Your task to perform on an android device: see sites visited before in the chrome app Image 0: 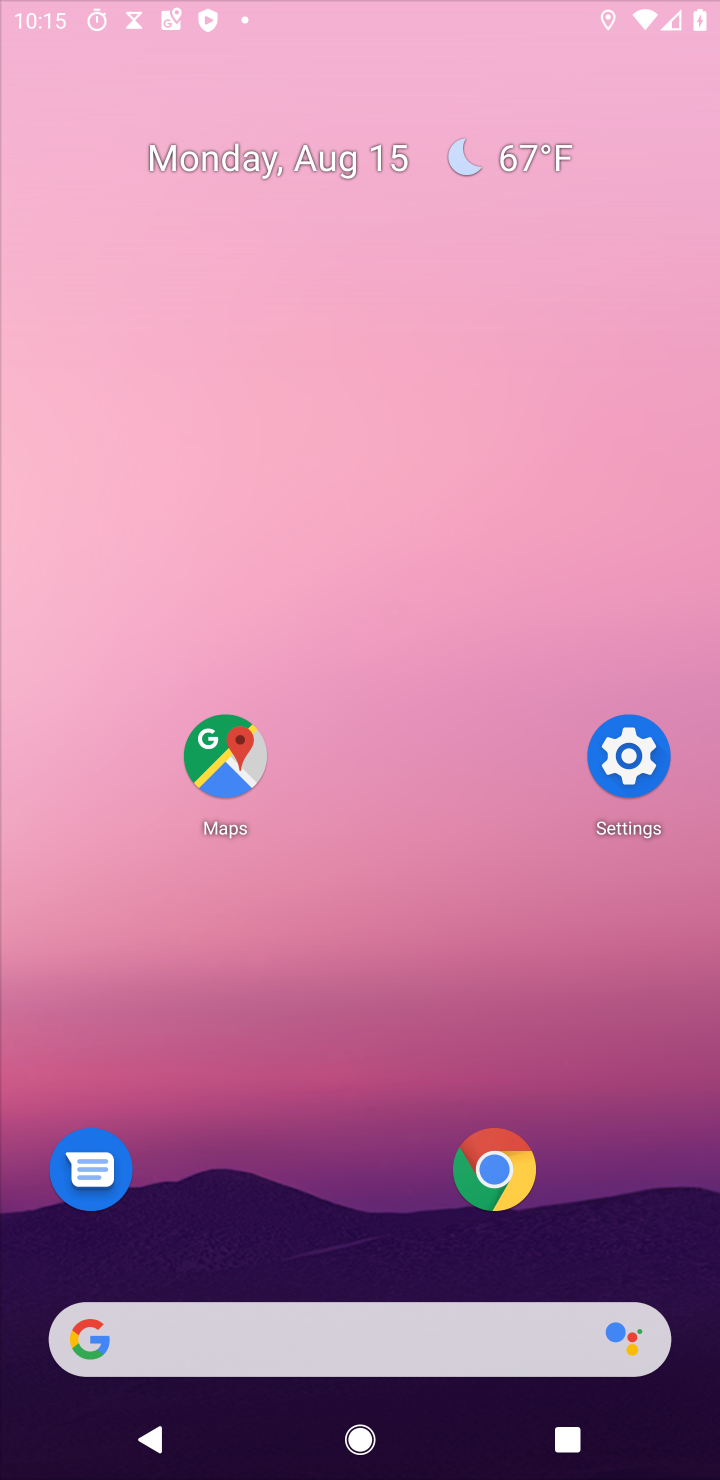
Step 0: press home button
Your task to perform on an android device: see sites visited before in the chrome app Image 1: 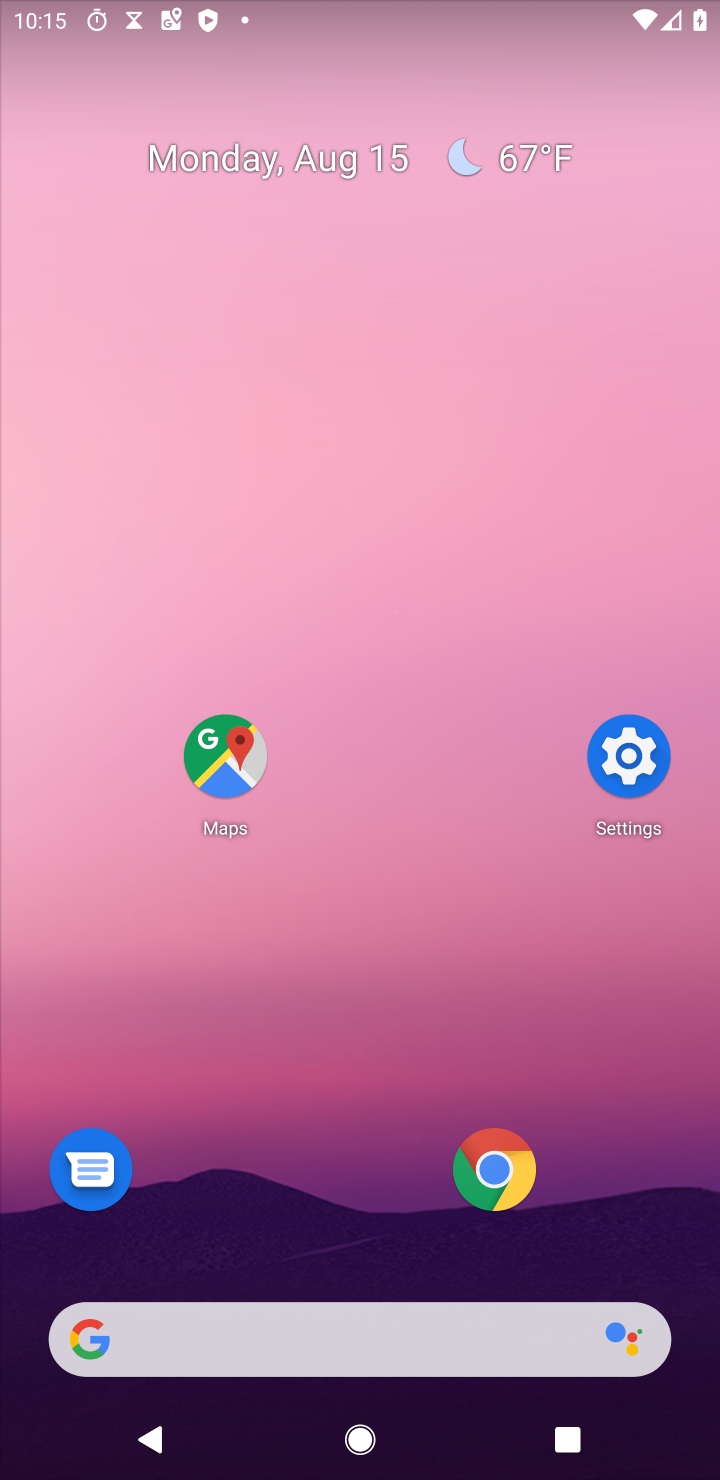
Step 1: click (497, 1173)
Your task to perform on an android device: see sites visited before in the chrome app Image 2: 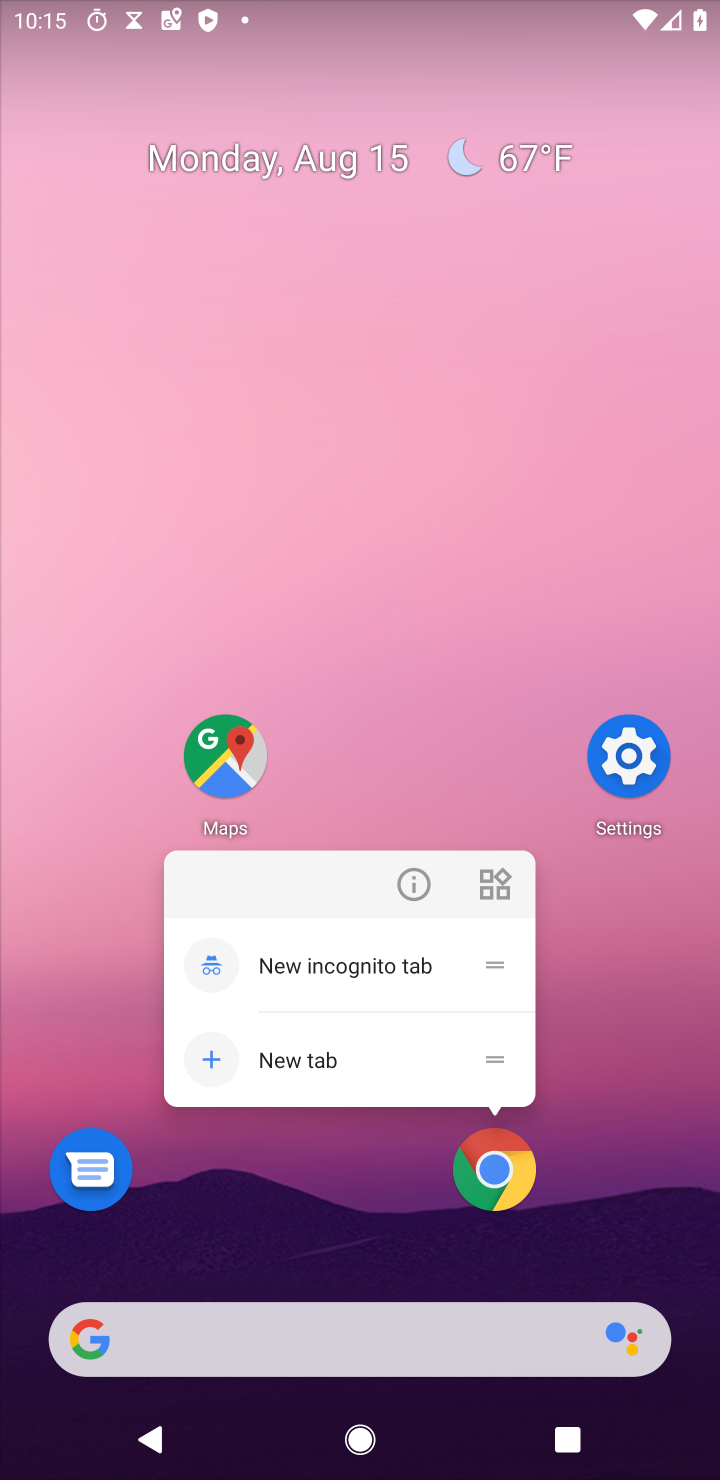
Step 2: click (497, 1178)
Your task to perform on an android device: see sites visited before in the chrome app Image 3: 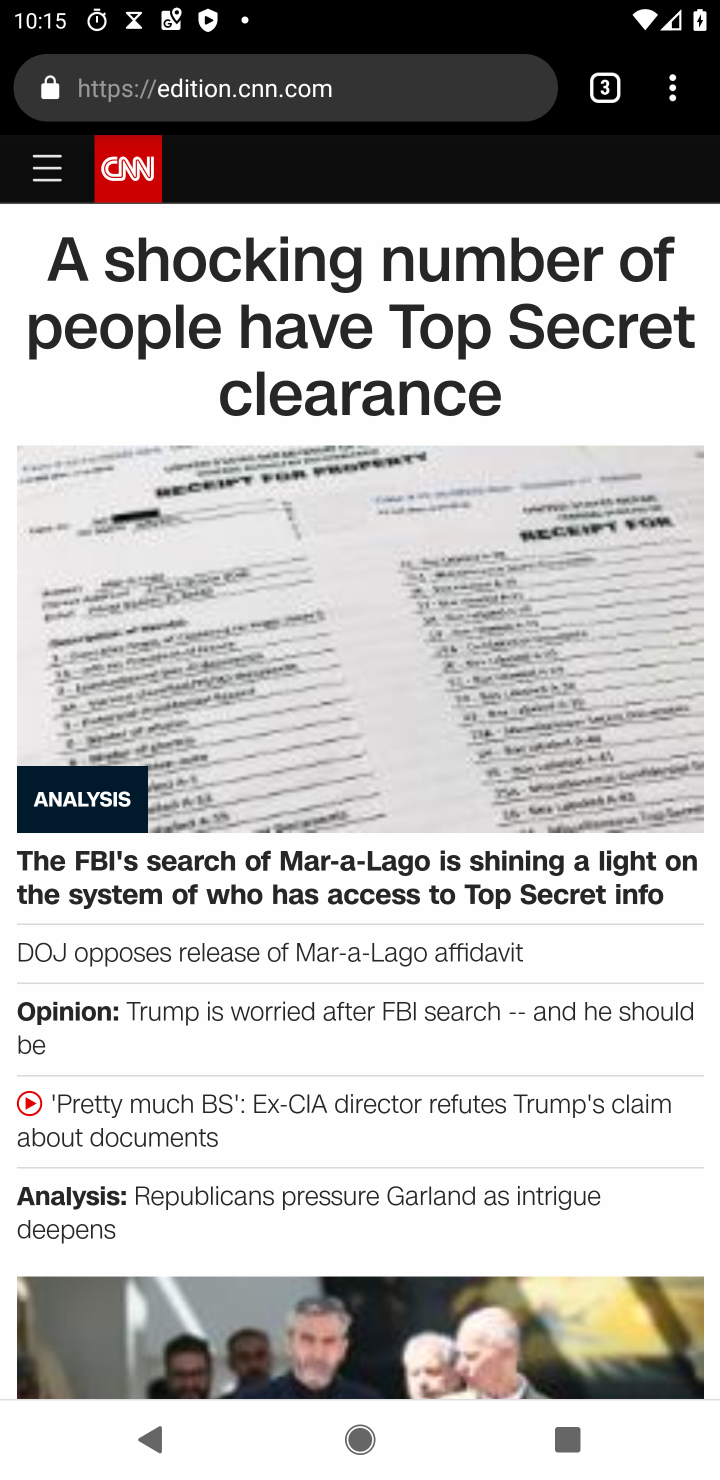
Step 3: task complete